Your task to perform on an android device: turn on notifications settings in the gmail app Image 0: 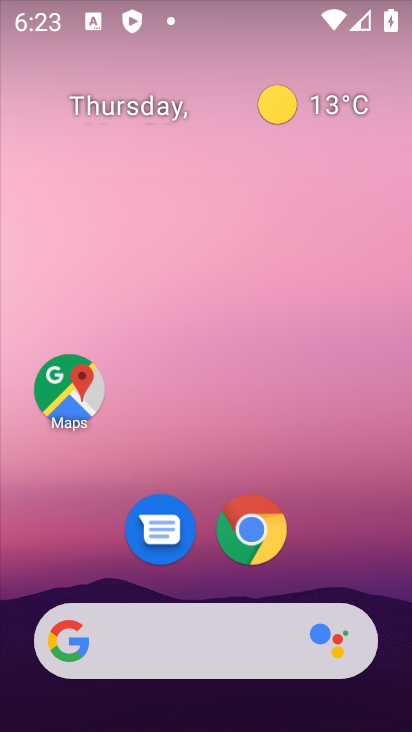
Step 0: drag from (287, 631) to (350, 33)
Your task to perform on an android device: turn on notifications settings in the gmail app Image 1: 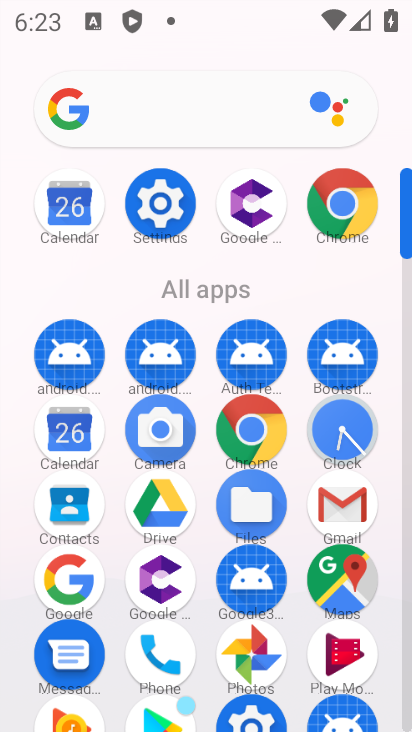
Step 1: click (339, 493)
Your task to perform on an android device: turn on notifications settings in the gmail app Image 2: 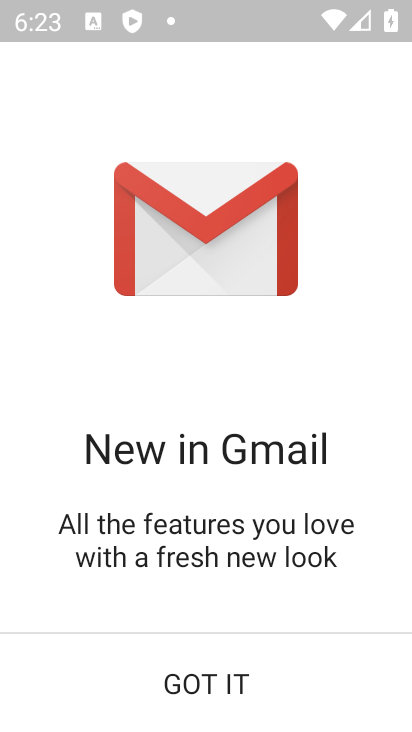
Step 2: click (272, 670)
Your task to perform on an android device: turn on notifications settings in the gmail app Image 3: 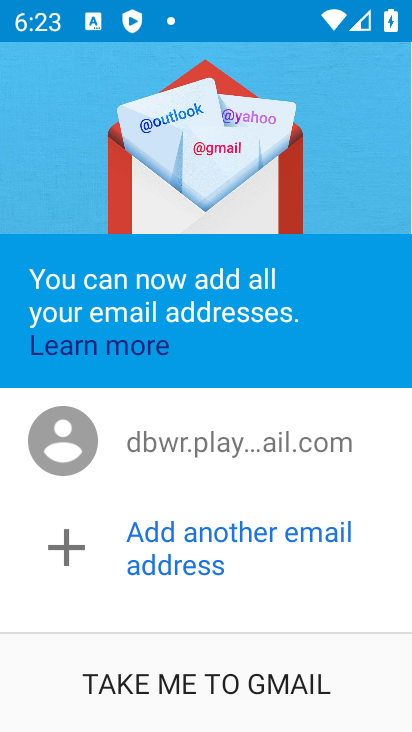
Step 3: click (250, 668)
Your task to perform on an android device: turn on notifications settings in the gmail app Image 4: 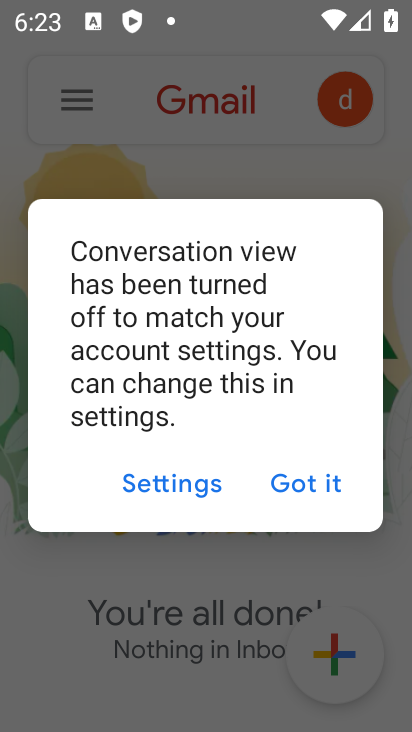
Step 4: click (292, 483)
Your task to perform on an android device: turn on notifications settings in the gmail app Image 5: 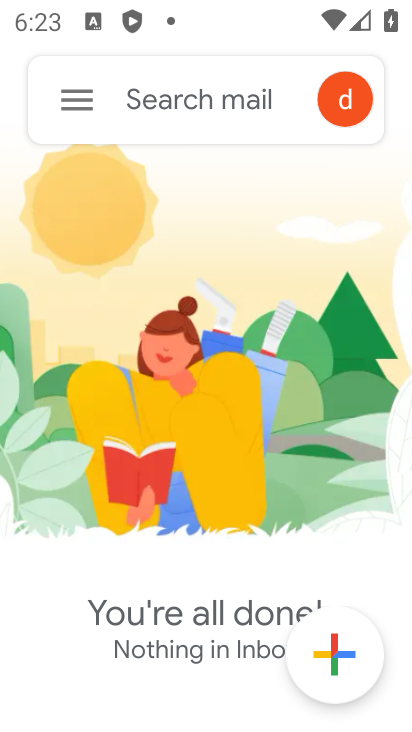
Step 5: click (77, 100)
Your task to perform on an android device: turn on notifications settings in the gmail app Image 6: 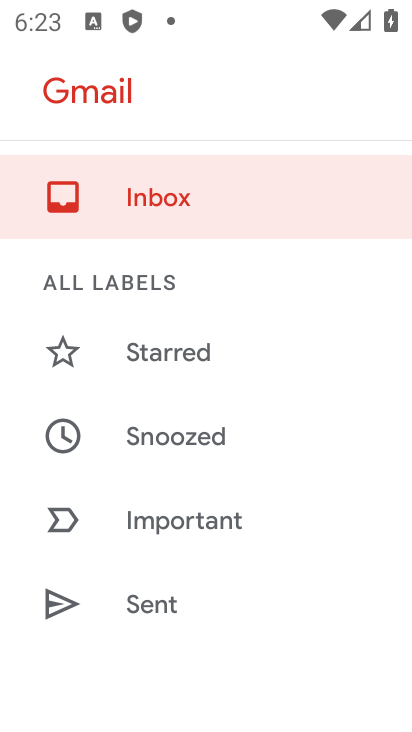
Step 6: drag from (233, 587) to (304, 4)
Your task to perform on an android device: turn on notifications settings in the gmail app Image 7: 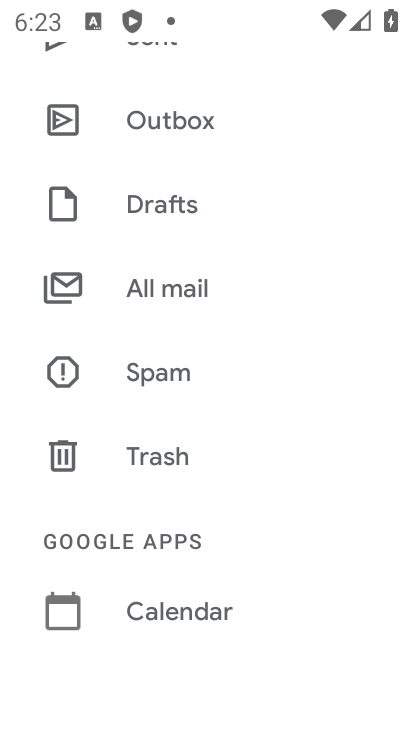
Step 7: drag from (217, 495) to (297, 25)
Your task to perform on an android device: turn on notifications settings in the gmail app Image 8: 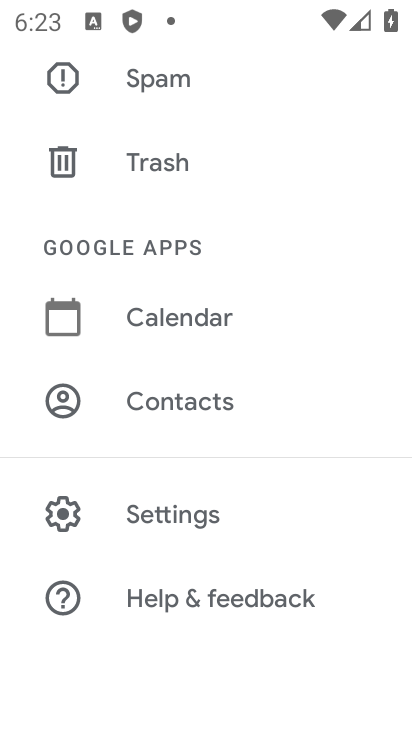
Step 8: click (225, 516)
Your task to perform on an android device: turn on notifications settings in the gmail app Image 9: 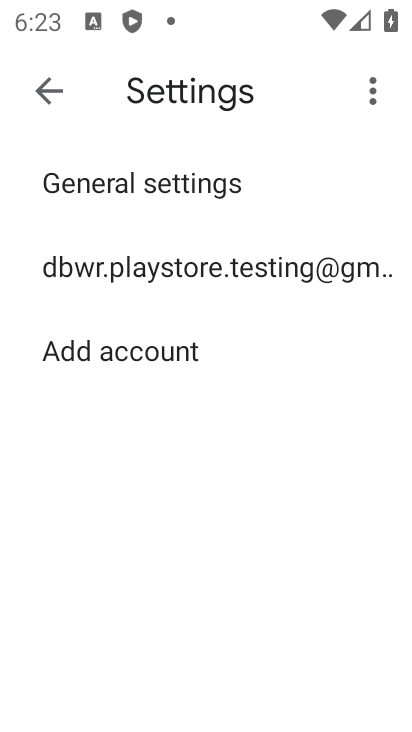
Step 9: click (302, 255)
Your task to perform on an android device: turn on notifications settings in the gmail app Image 10: 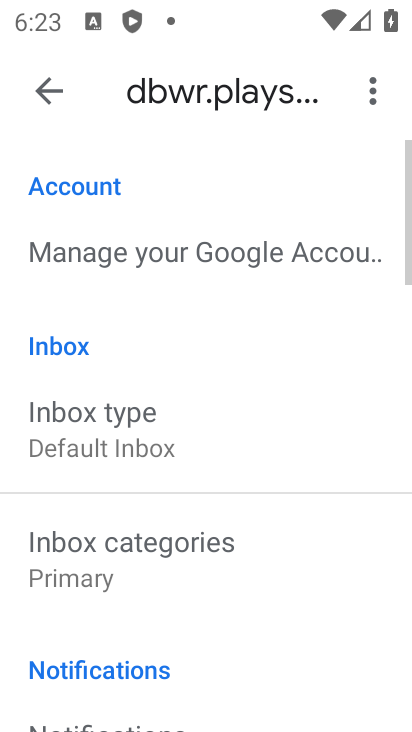
Step 10: drag from (161, 622) to (205, 3)
Your task to perform on an android device: turn on notifications settings in the gmail app Image 11: 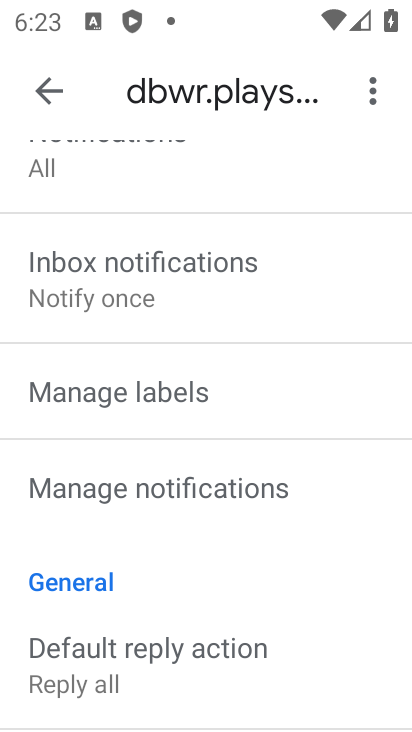
Step 11: click (201, 490)
Your task to perform on an android device: turn on notifications settings in the gmail app Image 12: 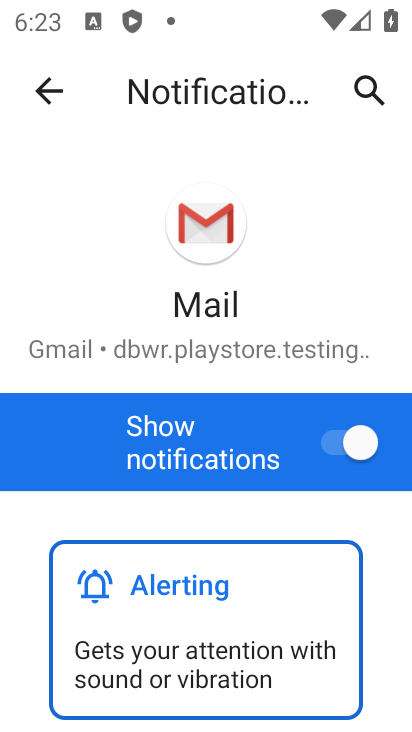
Step 12: task complete